Your task to perform on an android device: add a contact Image 0: 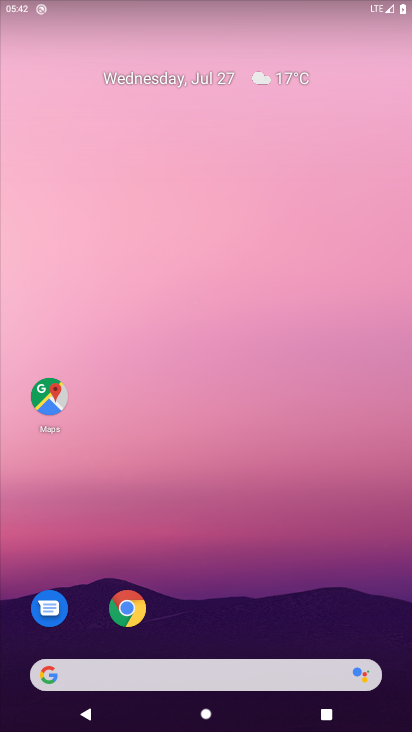
Step 0: press home button
Your task to perform on an android device: add a contact Image 1: 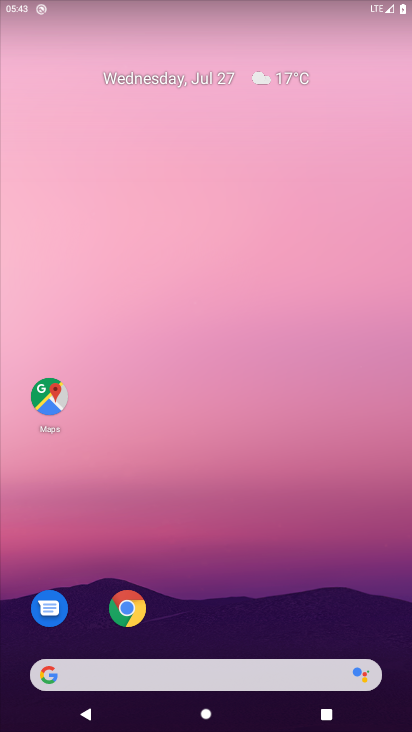
Step 1: drag from (254, 638) to (274, 31)
Your task to perform on an android device: add a contact Image 2: 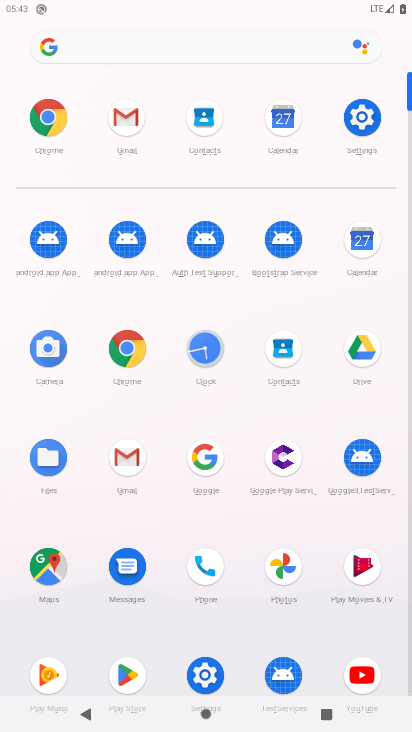
Step 2: click (288, 345)
Your task to perform on an android device: add a contact Image 3: 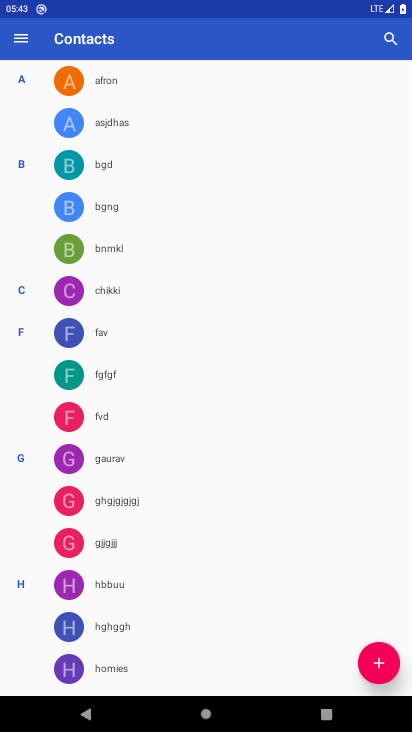
Step 3: click (377, 666)
Your task to perform on an android device: add a contact Image 4: 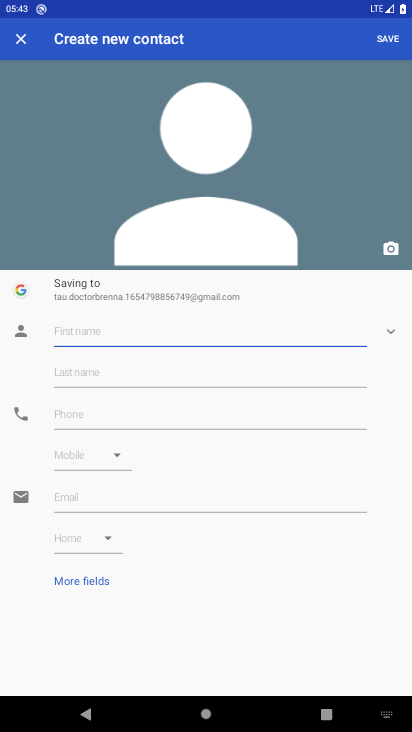
Step 4: type "ghghghghghg"
Your task to perform on an android device: add a contact Image 5: 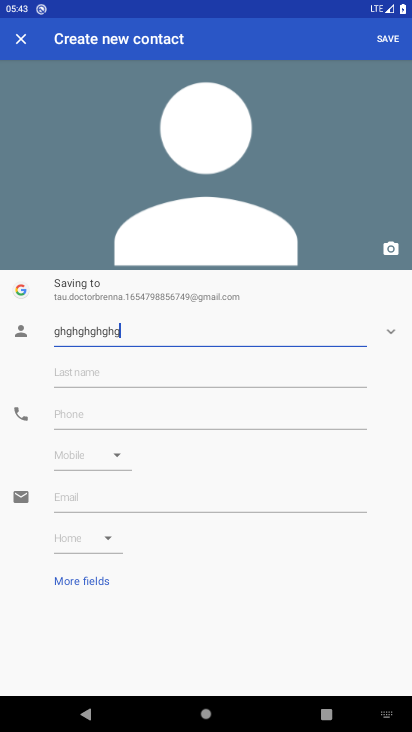
Step 5: click (164, 395)
Your task to perform on an android device: add a contact Image 6: 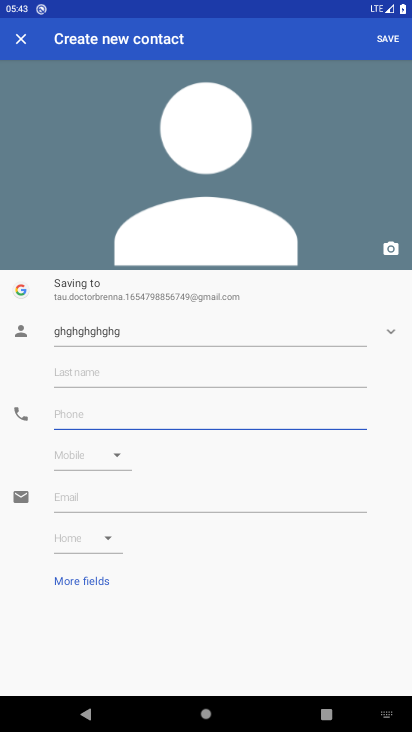
Step 6: type "7878787"
Your task to perform on an android device: add a contact Image 7: 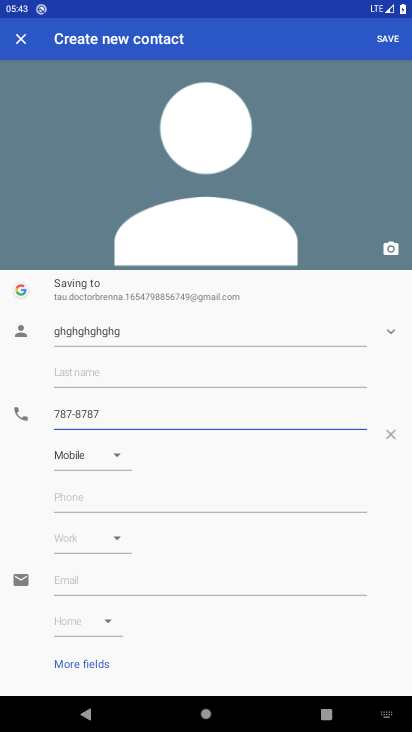
Step 7: click (387, 45)
Your task to perform on an android device: add a contact Image 8: 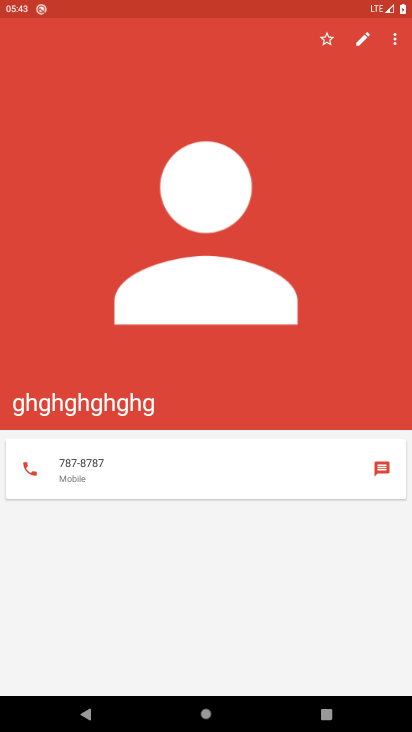
Step 8: task complete